Your task to perform on an android device: Open network settings Image 0: 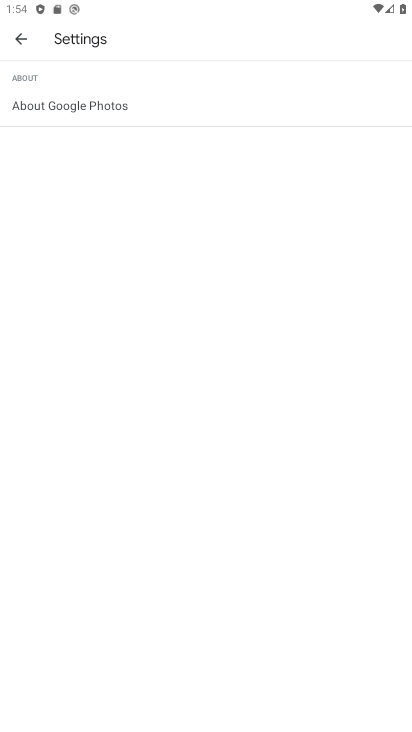
Step 0: press home button
Your task to perform on an android device: Open network settings Image 1: 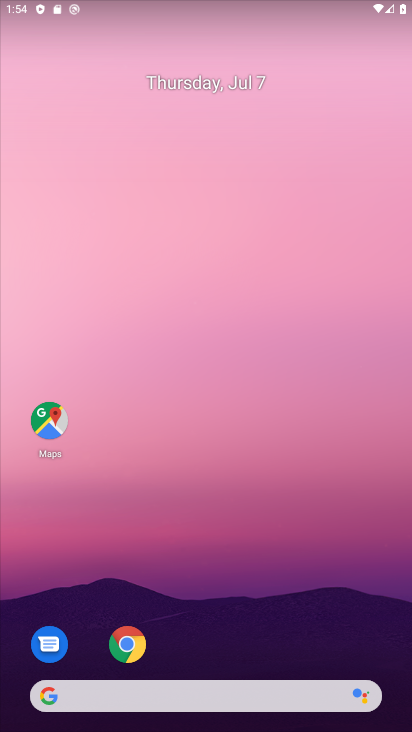
Step 1: drag from (217, 643) to (335, 4)
Your task to perform on an android device: Open network settings Image 2: 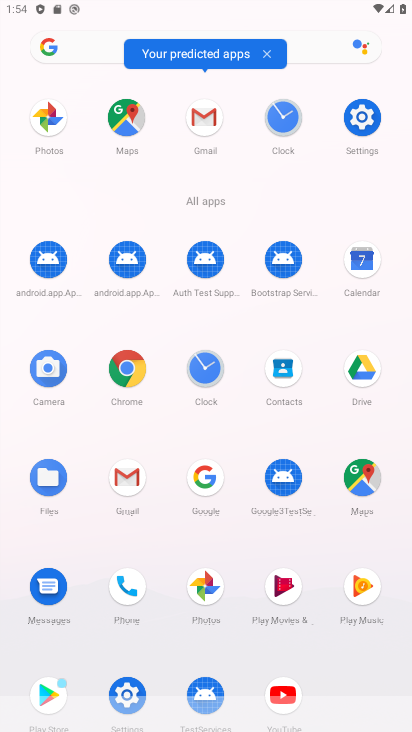
Step 2: click (340, 123)
Your task to perform on an android device: Open network settings Image 3: 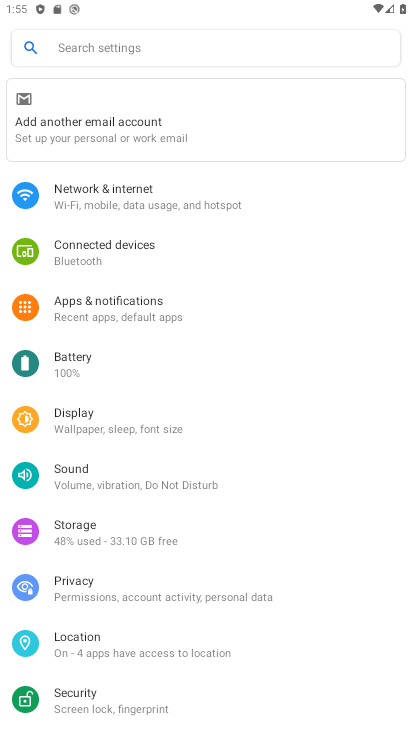
Step 3: click (151, 216)
Your task to perform on an android device: Open network settings Image 4: 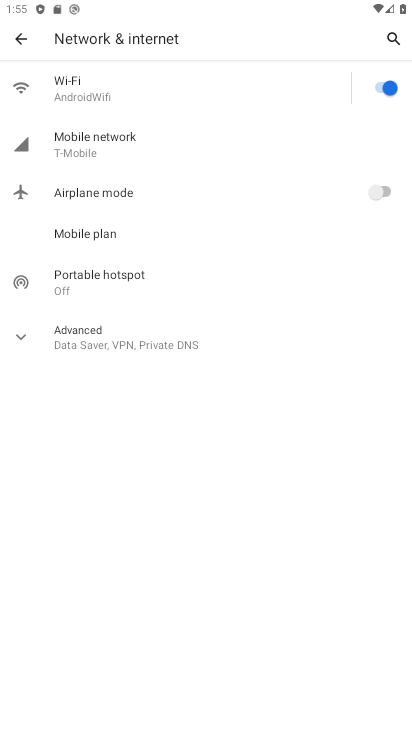
Step 4: click (84, 136)
Your task to perform on an android device: Open network settings Image 5: 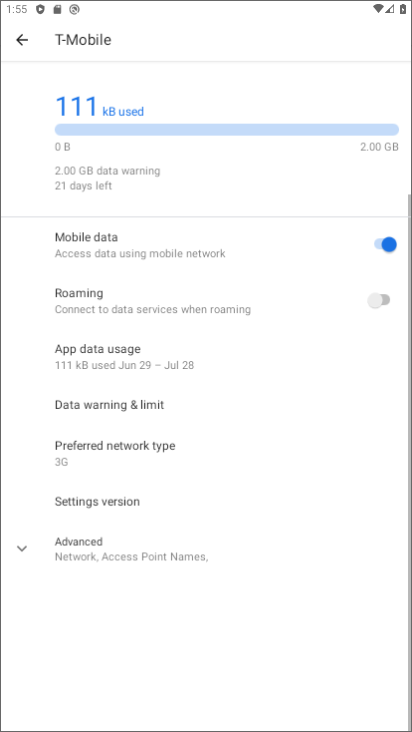
Step 5: task complete